Your task to perform on an android device: turn smart compose on in the gmail app Image 0: 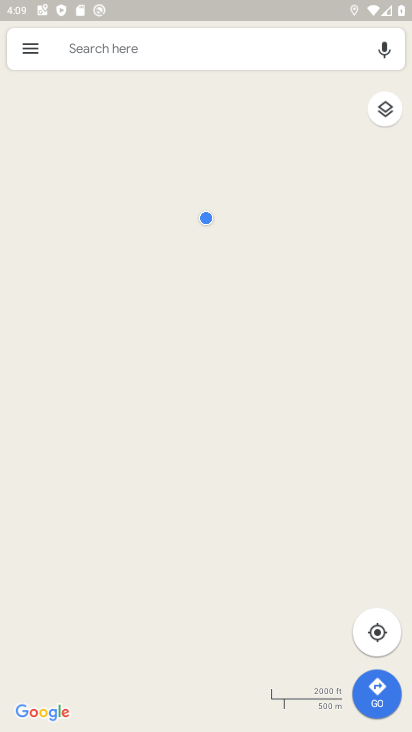
Step 0: press back button
Your task to perform on an android device: turn smart compose on in the gmail app Image 1: 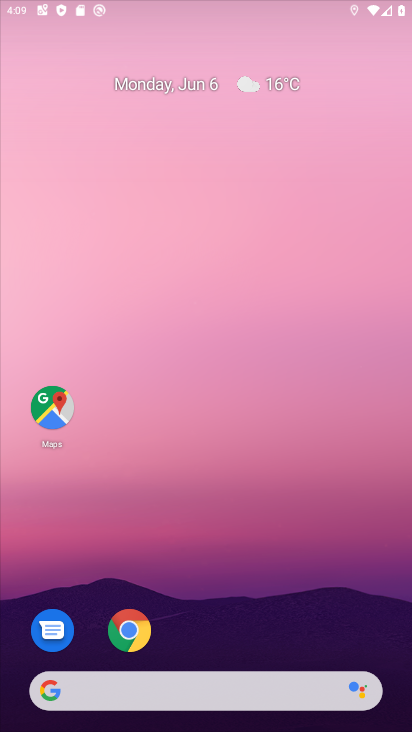
Step 1: press back button
Your task to perform on an android device: turn smart compose on in the gmail app Image 2: 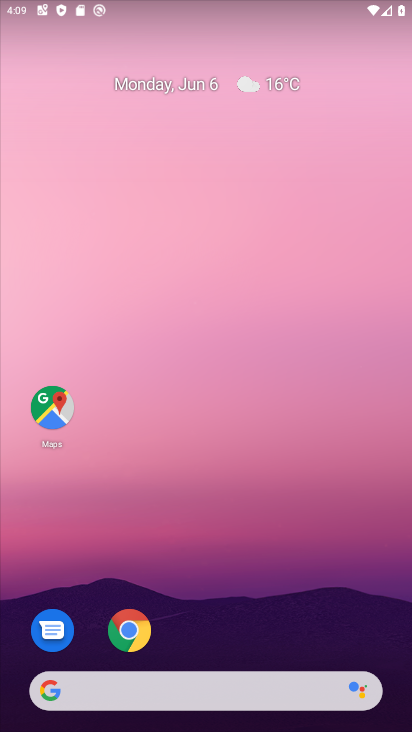
Step 2: drag from (245, 622) to (374, 0)
Your task to perform on an android device: turn smart compose on in the gmail app Image 3: 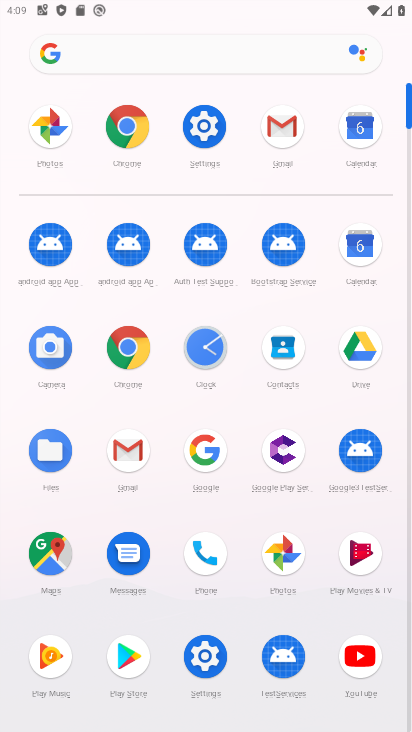
Step 3: click (283, 127)
Your task to perform on an android device: turn smart compose on in the gmail app Image 4: 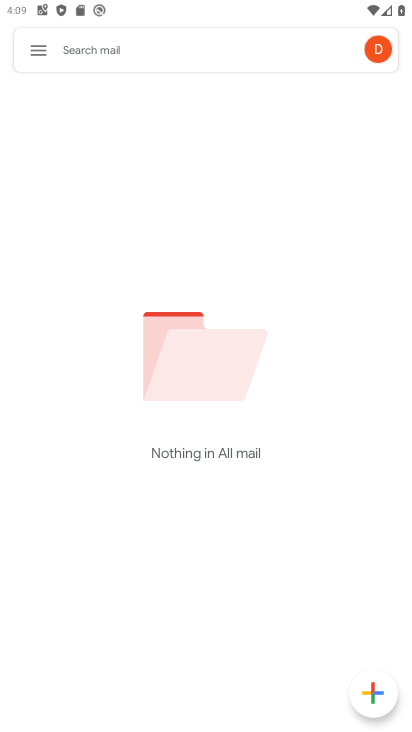
Step 4: click (38, 39)
Your task to perform on an android device: turn smart compose on in the gmail app Image 5: 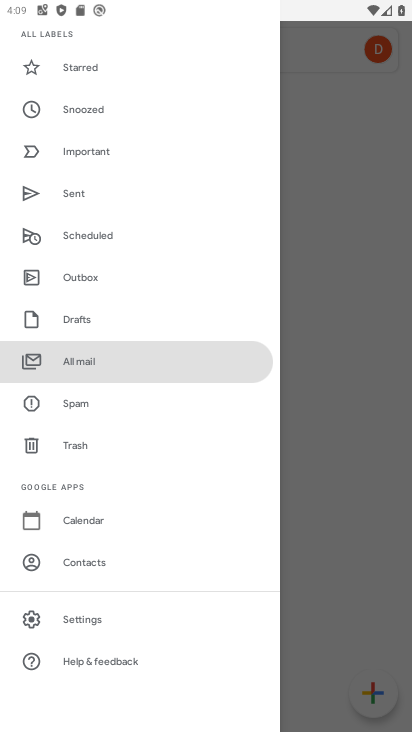
Step 5: click (76, 622)
Your task to perform on an android device: turn smart compose on in the gmail app Image 6: 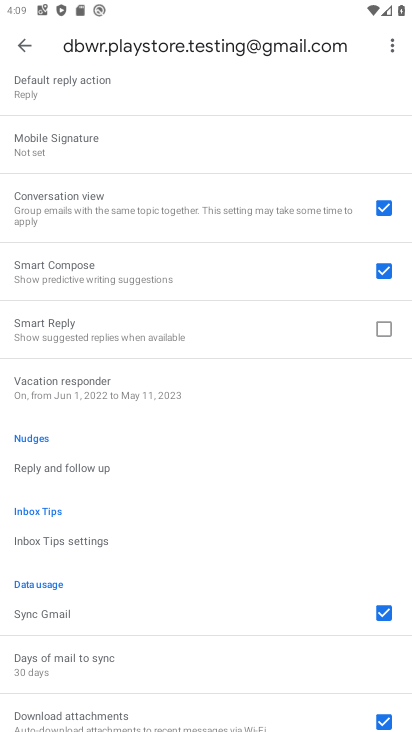
Step 6: task complete